Your task to perform on an android device: all mails in gmail Image 0: 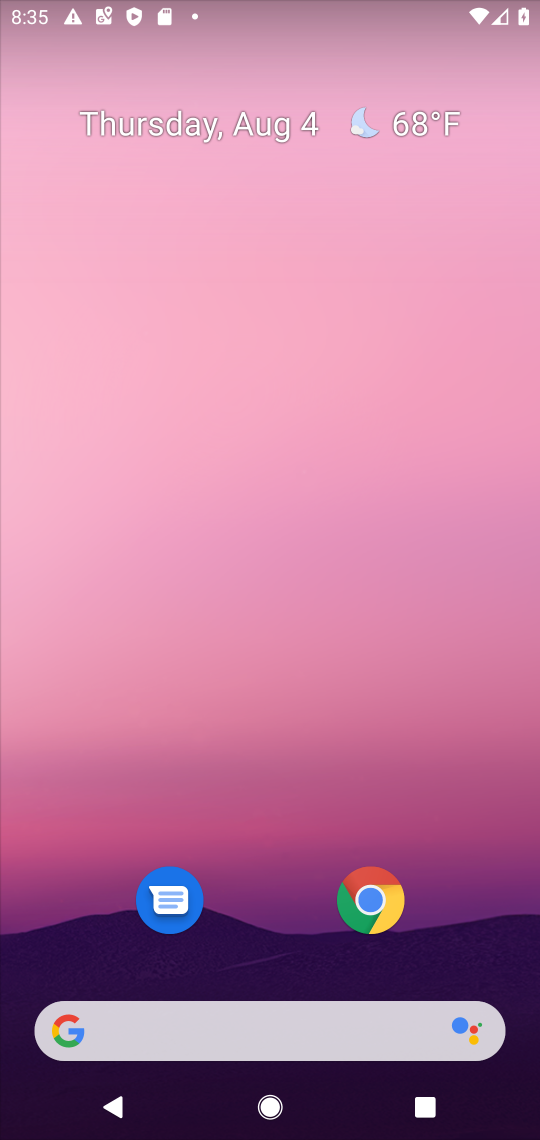
Step 0: drag from (233, 982) to (274, 268)
Your task to perform on an android device: all mails in gmail Image 1: 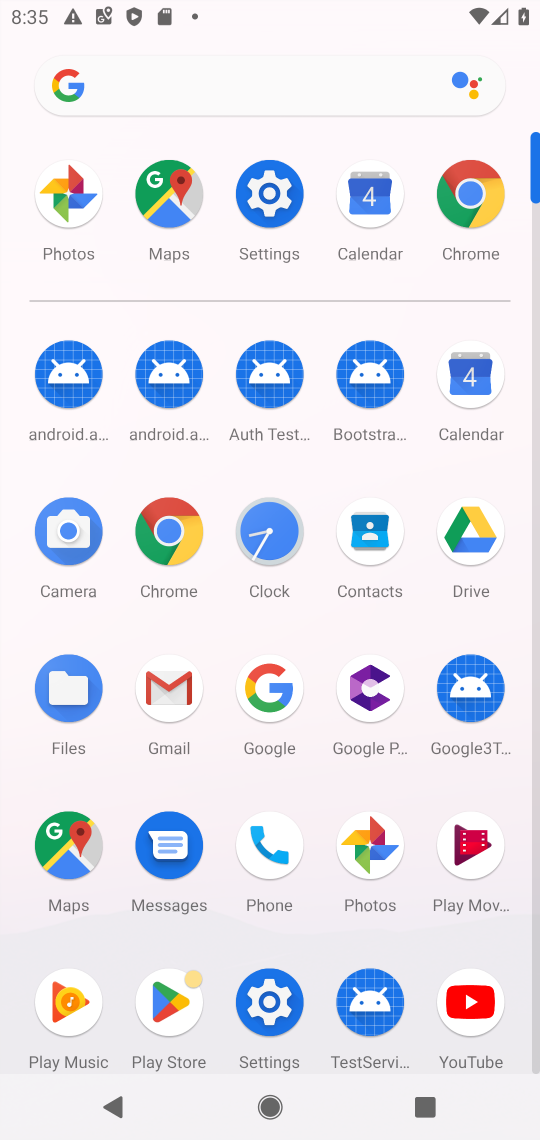
Step 1: click (161, 704)
Your task to perform on an android device: all mails in gmail Image 2: 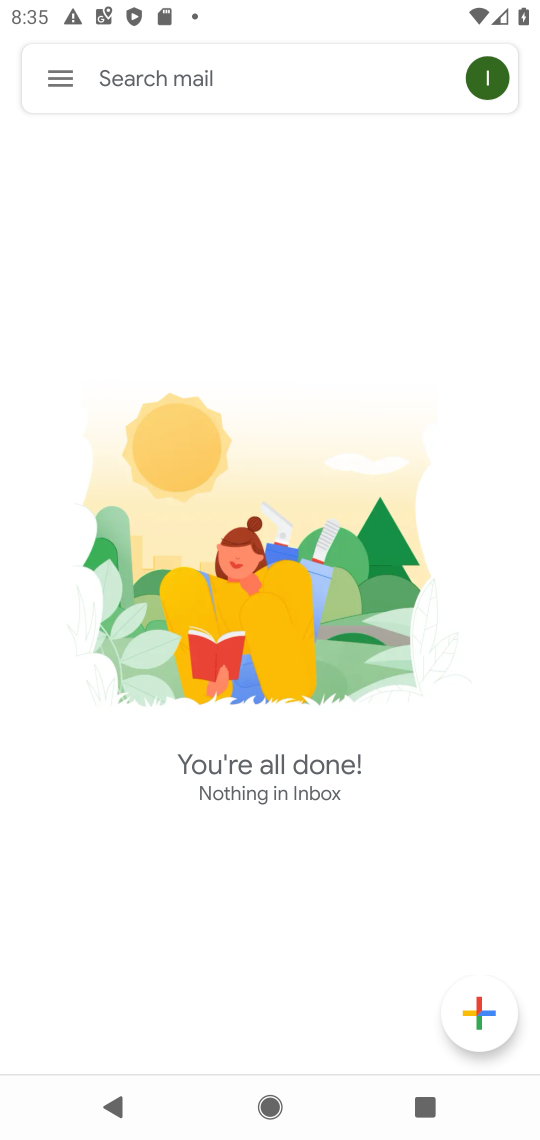
Step 2: click (49, 83)
Your task to perform on an android device: all mails in gmail Image 3: 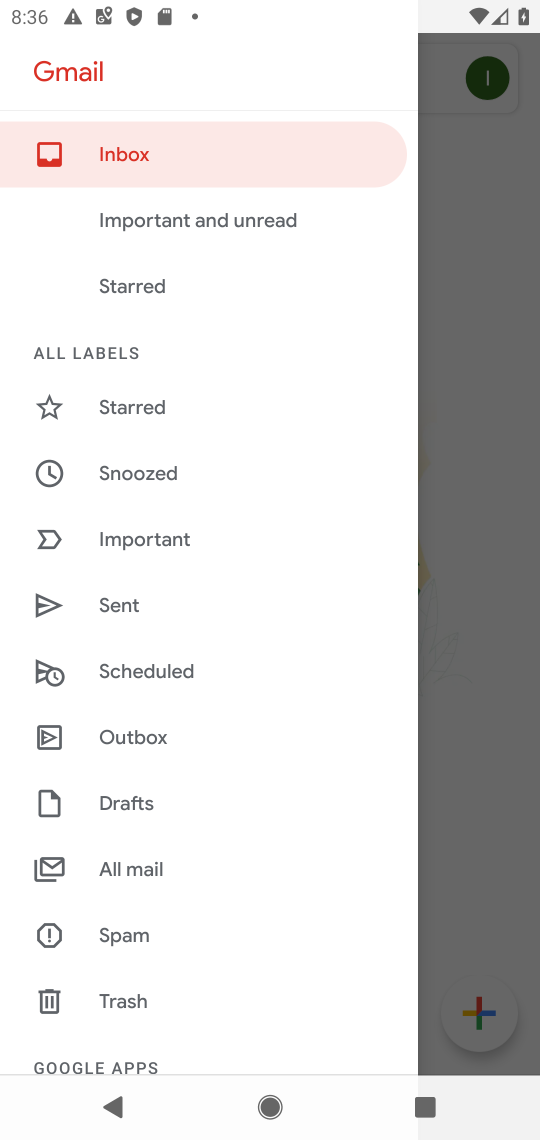
Step 3: click (166, 868)
Your task to perform on an android device: all mails in gmail Image 4: 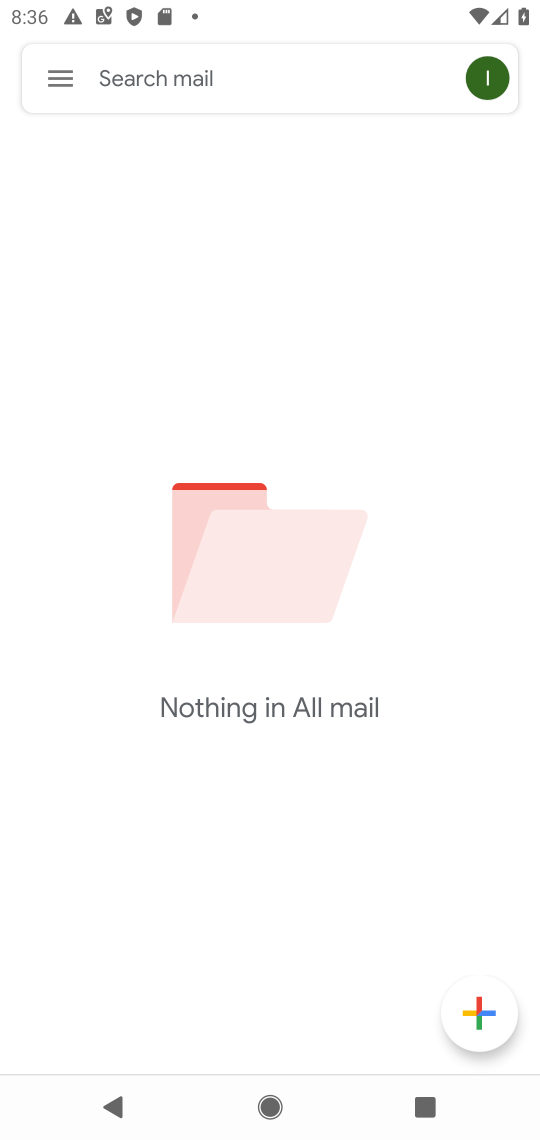
Step 4: task complete